Your task to perform on an android device: check storage Image 0: 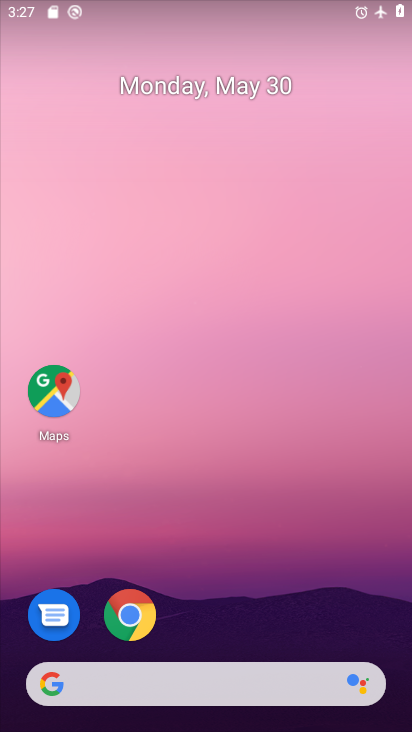
Step 0: drag from (216, 599) to (235, 62)
Your task to perform on an android device: check storage Image 1: 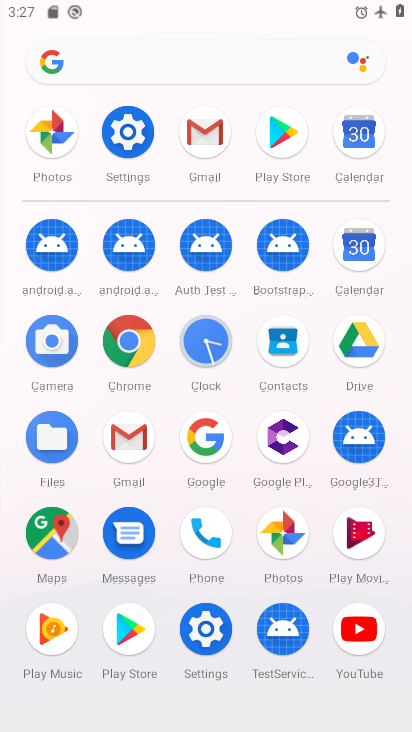
Step 1: click (128, 126)
Your task to perform on an android device: check storage Image 2: 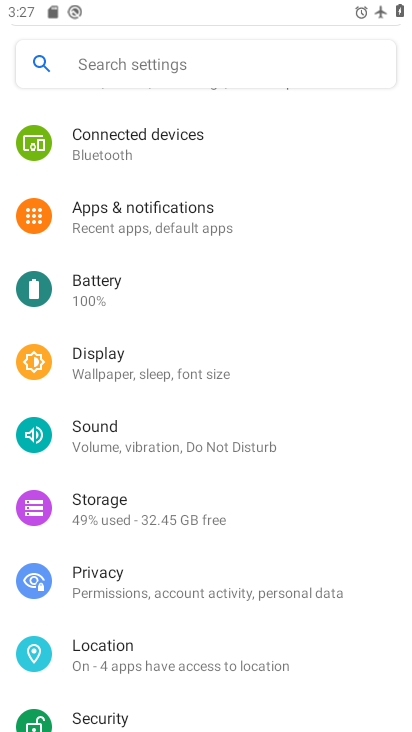
Step 2: click (159, 517)
Your task to perform on an android device: check storage Image 3: 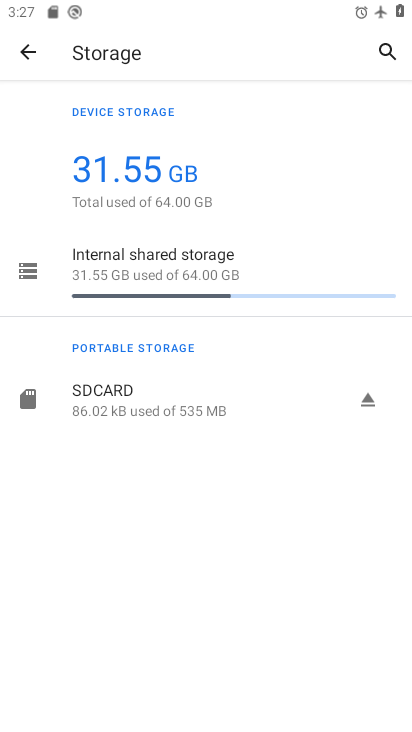
Step 3: task complete